Your task to perform on an android device: toggle data saver in the chrome app Image 0: 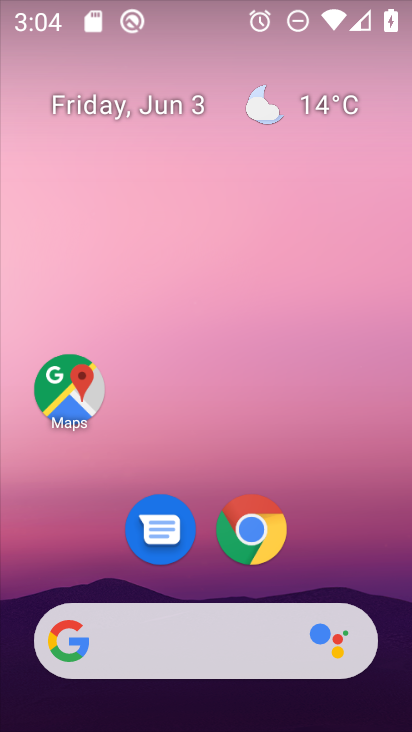
Step 0: drag from (360, 532) to (321, 151)
Your task to perform on an android device: toggle data saver in the chrome app Image 1: 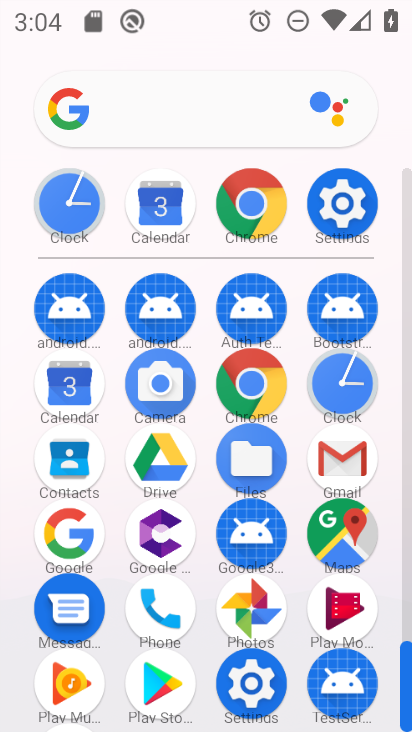
Step 1: click (270, 392)
Your task to perform on an android device: toggle data saver in the chrome app Image 2: 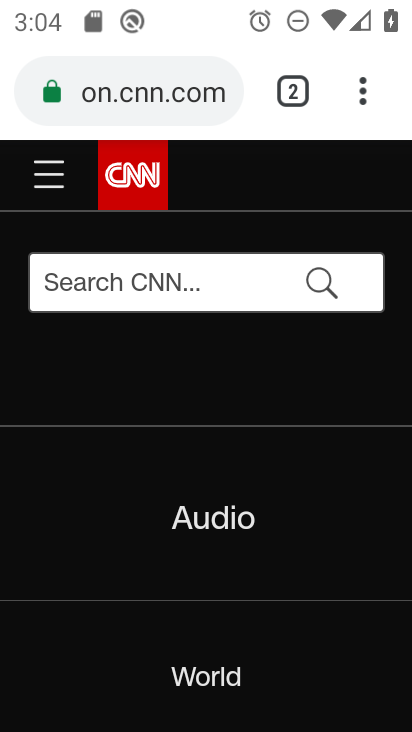
Step 2: click (365, 105)
Your task to perform on an android device: toggle data saver in the chrome app Image 3: 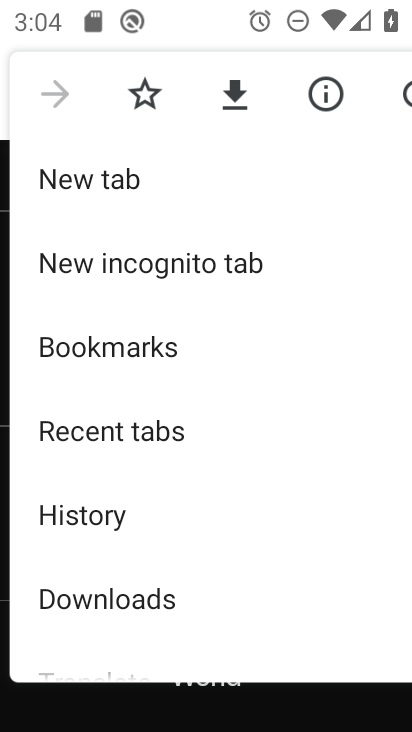
Step 3: drag from (283, 410) to (276, 258)
Your task to perform on an android device: toggle data saver in the chrome app Image 4: 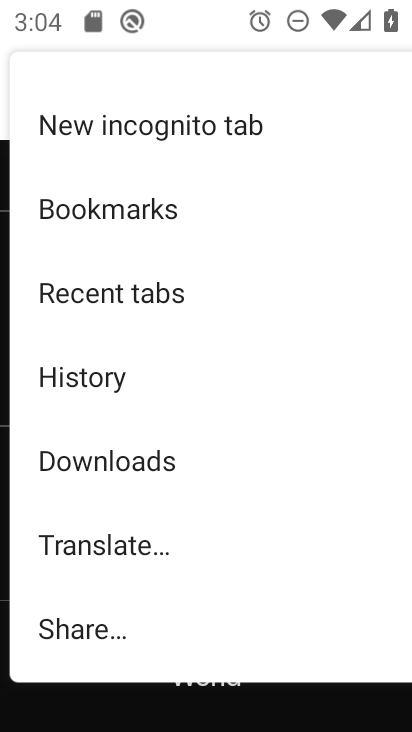
Step 4: drag from (299, 471) to (306, 282)
Your task to perform on an android device: toggle data saver in the chrome app Image 5: 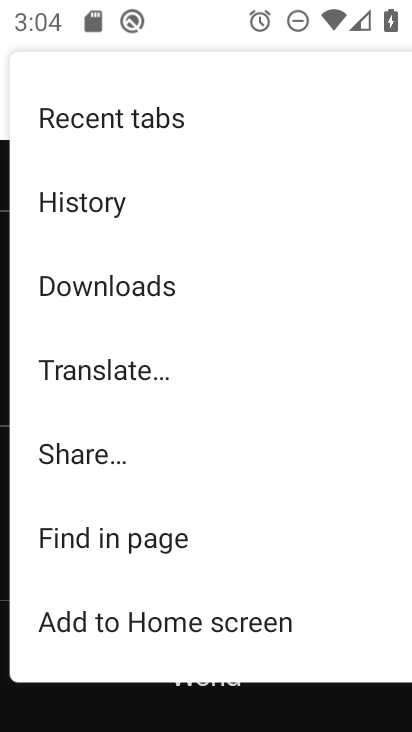
Step 5: drag from (292, 491) to (289, 331)
Your task to perform on an android device: toggle data saver in the chrome app Image 6: 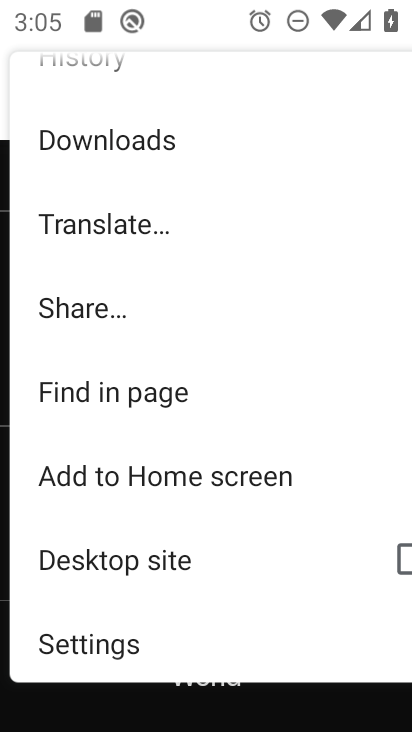
Step 6: drag from (313, 554) to (311, 390)
Your task to perform on an android device: toggle data saver in the chrome app Image 7: 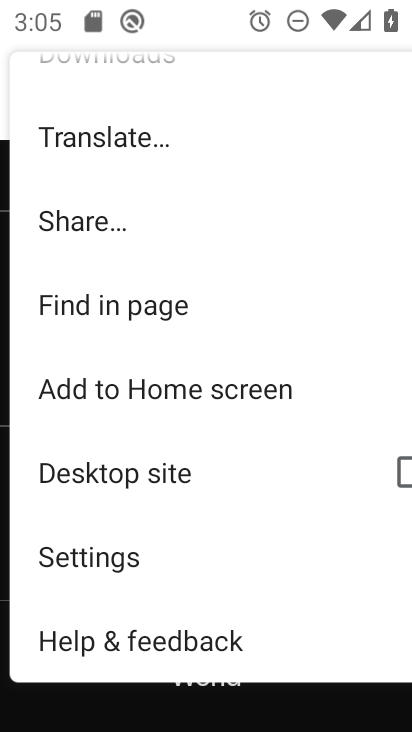
Step 7: click (144, 558)
Your task to perform on an android device: toggle data saver in the chrome app Image 8: 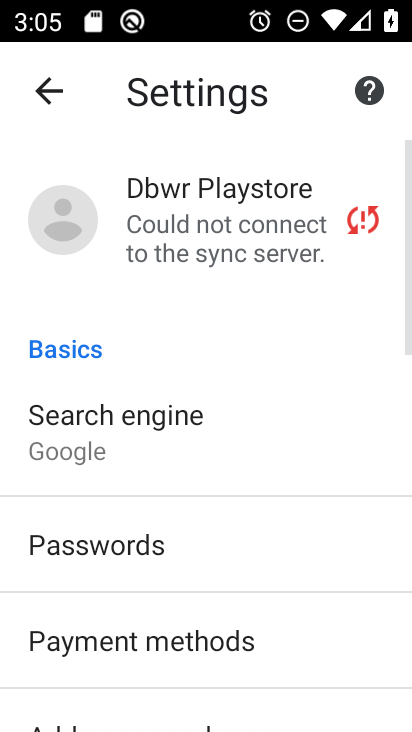
Step 8: drag from (322, 521) to (324, 412)
Your task to perform on an android device: toggle data saver in the chrome app Image 9: 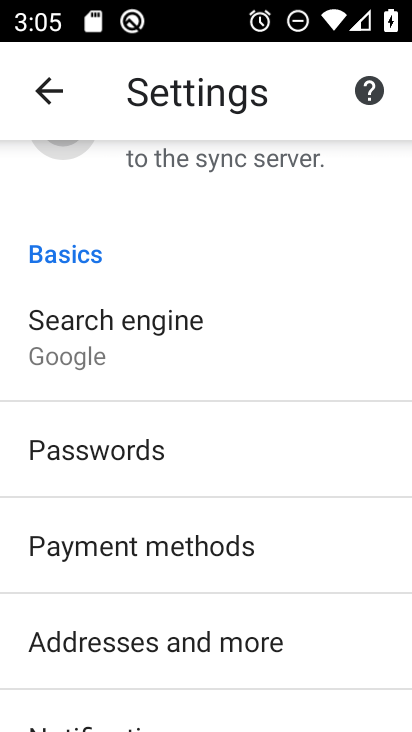
Step 9: drag from (319, 577) to (314, 453)
Your task to perform on an android device: toggle data saver in the chrome app Image 10: 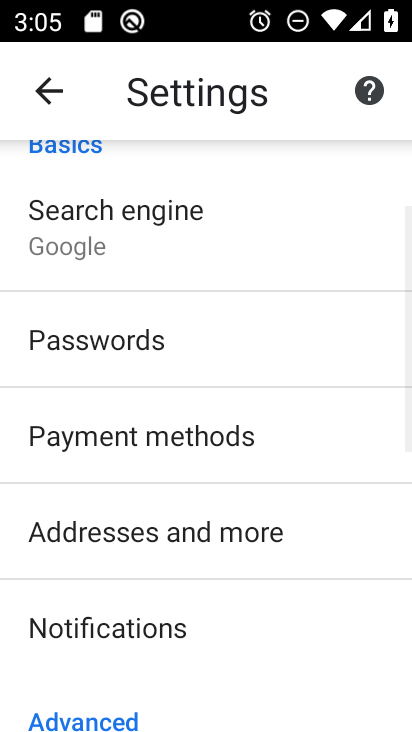
Step 10: drag from (314, 592) to (313, 477)
Your task to perform on an android device: toggle data saver in the chrome app Image 11: 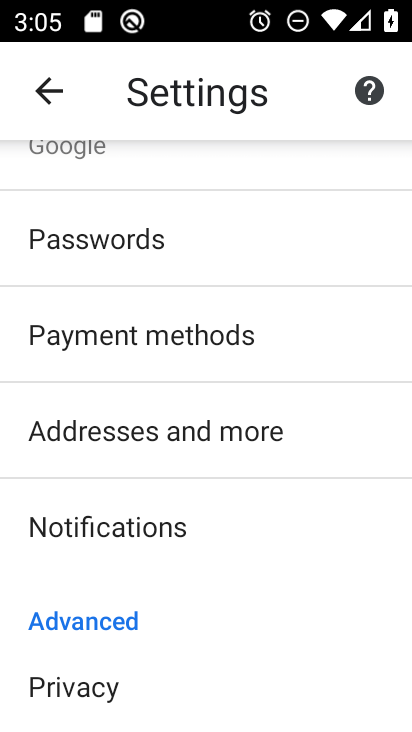
Step 11: drag from (327, 543) to (327, 424)
Your task to perform on an android device: toggle data saver in the chrome app Image 12: 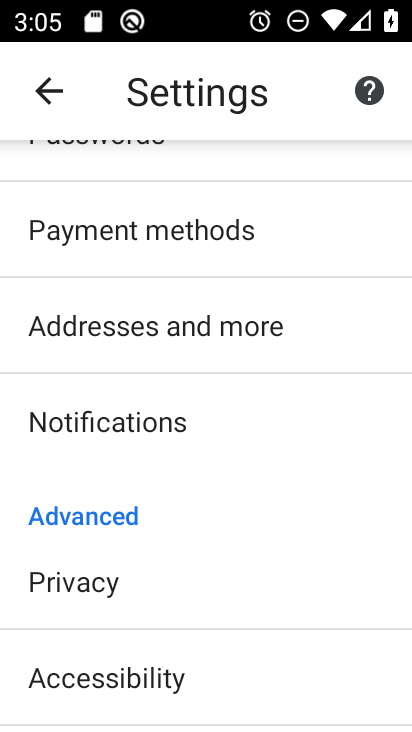
Step 12: drag from (325, 563) to (321, 400)
Your task to perform on an android device: toggle data saver in the chrome app Image 13: 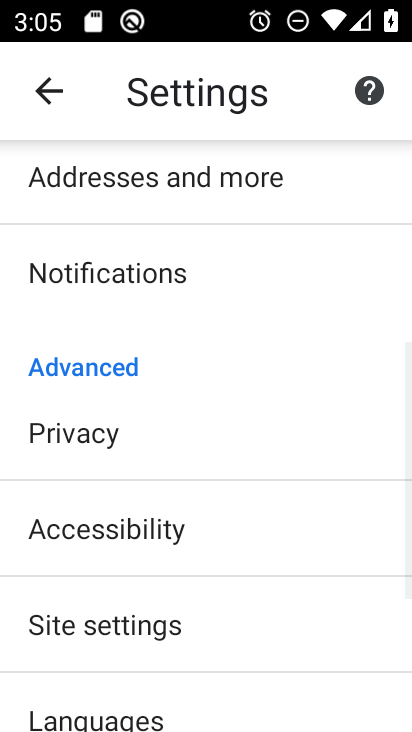
Step 13: drag from (325, 585) to (323, 450)
Your task to perform on an android device: toggle data saver in the chrome app Image 14: 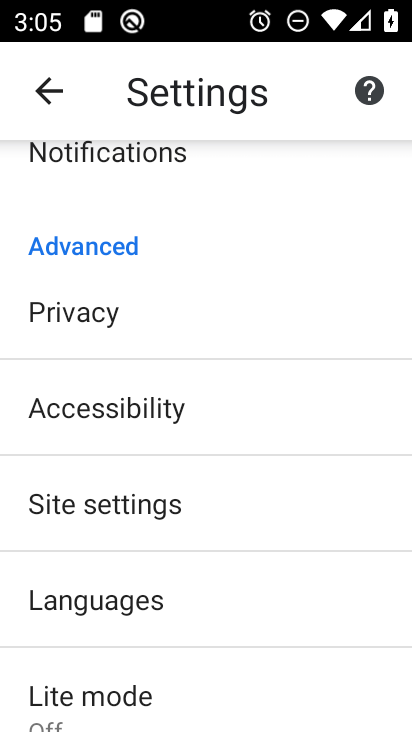
Step 14: drag from (314, 607) to (315, 461)
Your task to perform on an android device: toggle data saver in the chrome app Image 15: 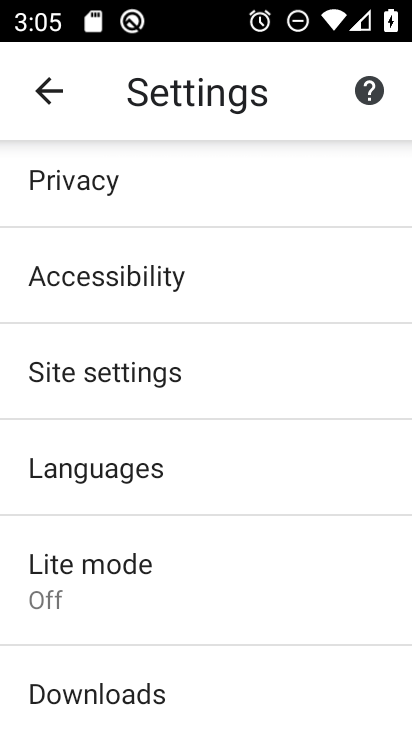
Step 15: drag from (300, 601) to (294, 485)
Your task to perform on an android device: toggle data saver in the chrome app Image 16: 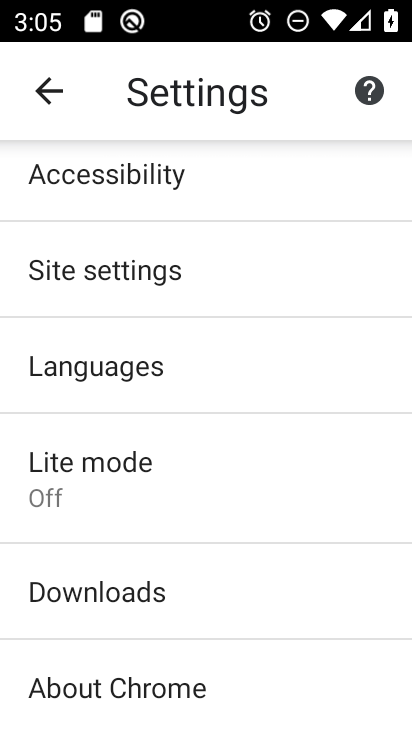
Step 16: click (212, 507)
Your task to perform on an android device: toggle data saver in the chrome app Image 17: 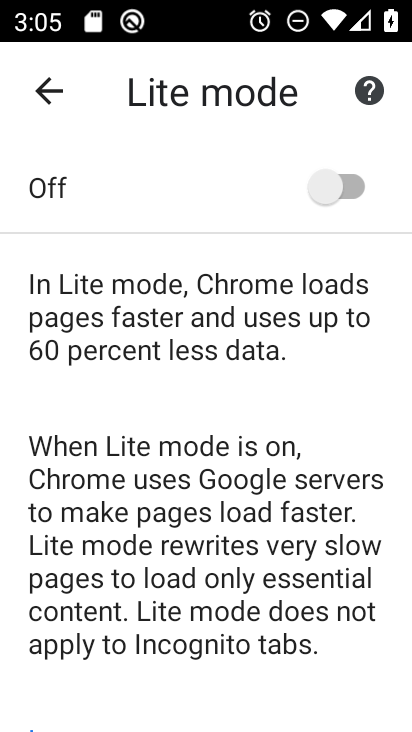
Step 17: click (317, 188)
Your task to perform on an android device: toggle data saver in the chrome app Image 18: 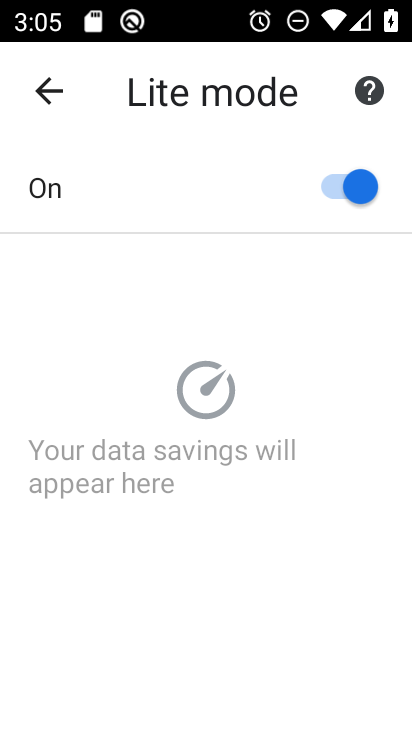
Step 18: task complete